Your task to perform on an android device: snooze an email in the gmail app Image 0: 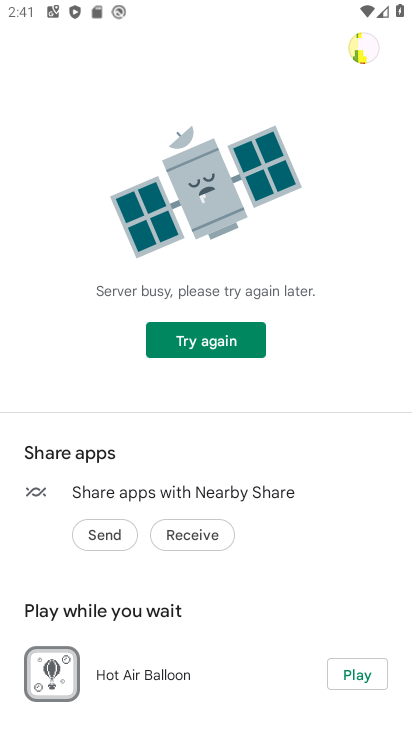
Step 0: press home button
Your task to perform on an android device: snooze an email in the gmail app Image 1: 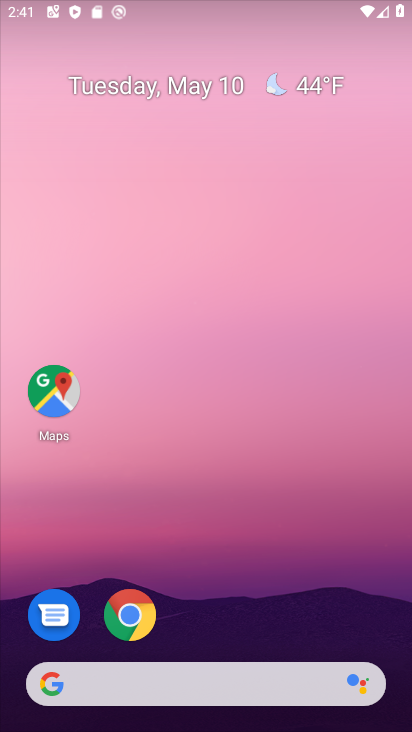
Step 1: drag from (287, 583) to (279, 14)
Your task to perform on an android device: snooze an email in the gmail app Image 2: 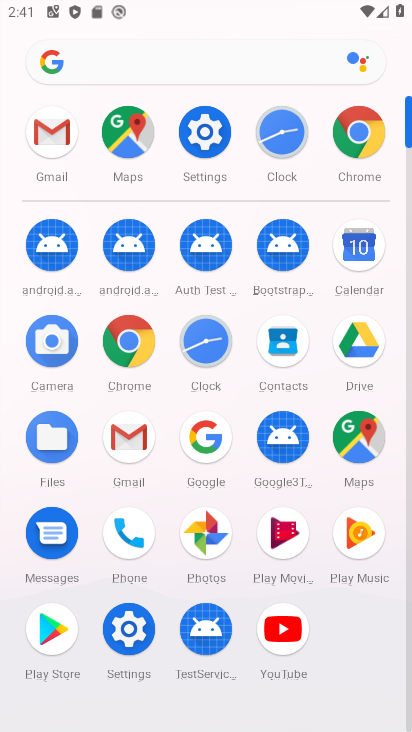
Step 2: click (41, 150)
Your task to perform on an android device: snooze an email in the gmail app Image 3: 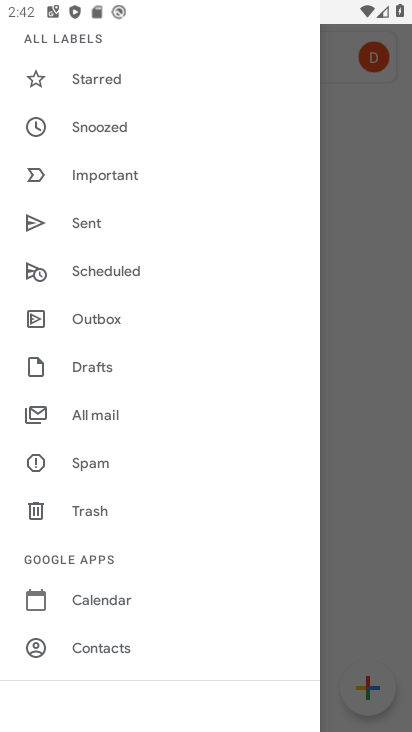
Step 3: task complete